Your task to perform on an android device: What's the weather today? Image 0: 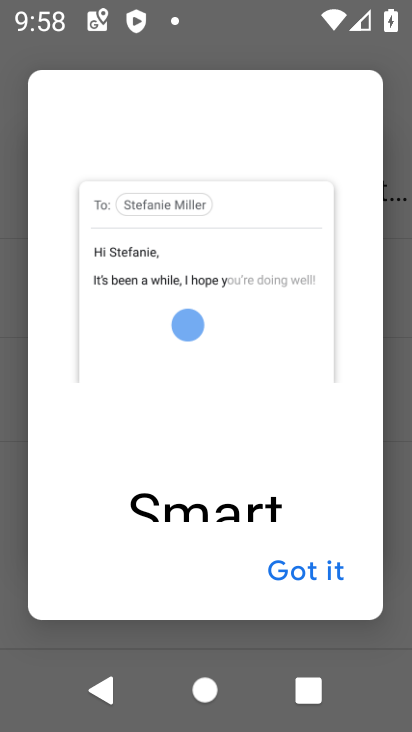
Step 0: press home button
Your task to perform on an android device: What's the weather today? Image 1: 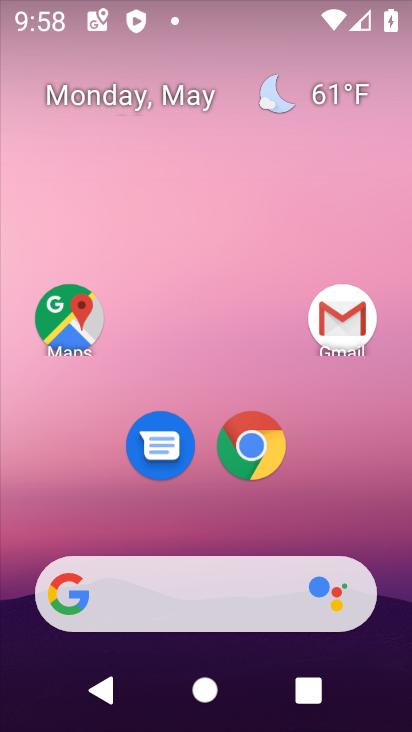
Step 1: click (221, 593)
Your task to perform on an android device: What's the weather today? Image 2: 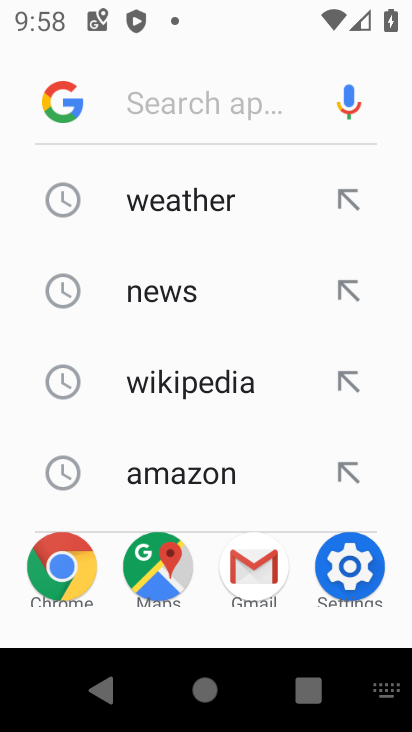
Step 2: click (203, 210)
Your task to perform on an android device: What's the weather today? Image 3: 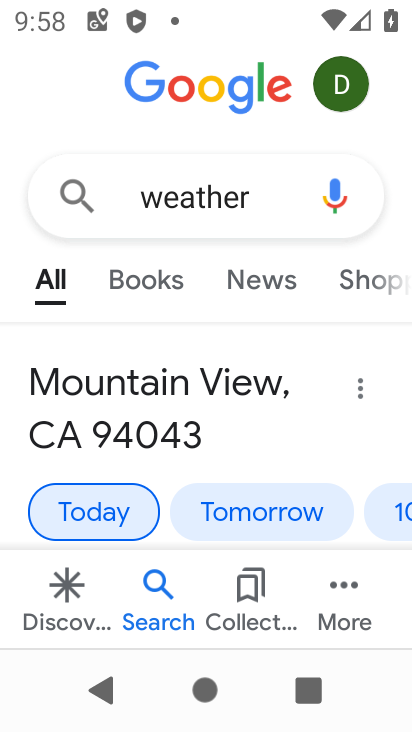
Step 3: drag from (289, 428) to (308, 181)
Your task to perform on an android device: What's the weather today? Image 4: 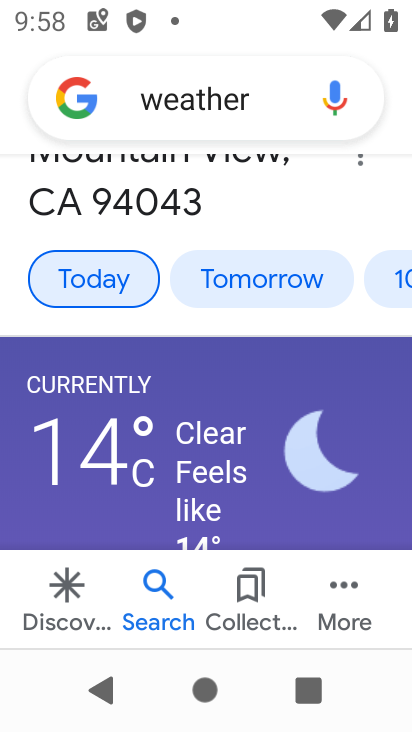
Step 4: click (115, 283)
Your task to perform on an android device: What's the weather today? Image 5: 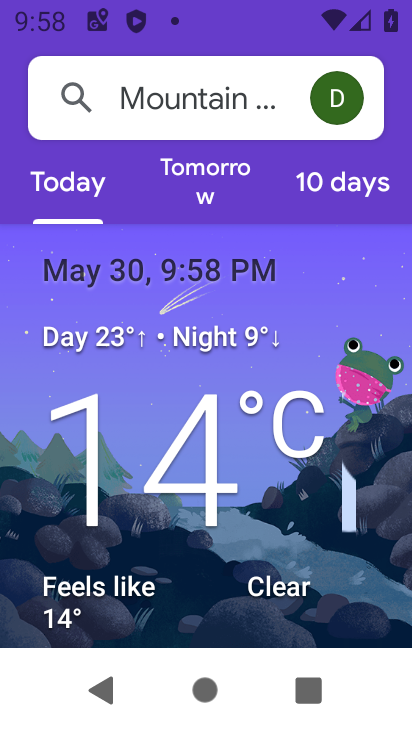
Step 5: task complete